Your task to perform on an android device: refresh tabs in the chrome app Image 0: 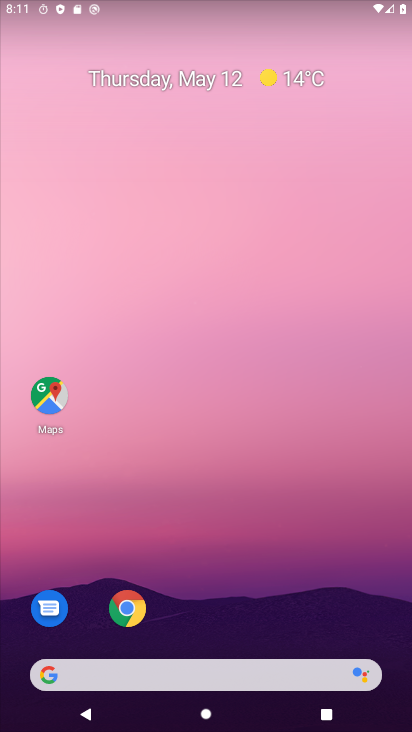
Step 0: click (137, 622)
Your task to perform on an android device: refresh tabs in the chrome app Image 1: 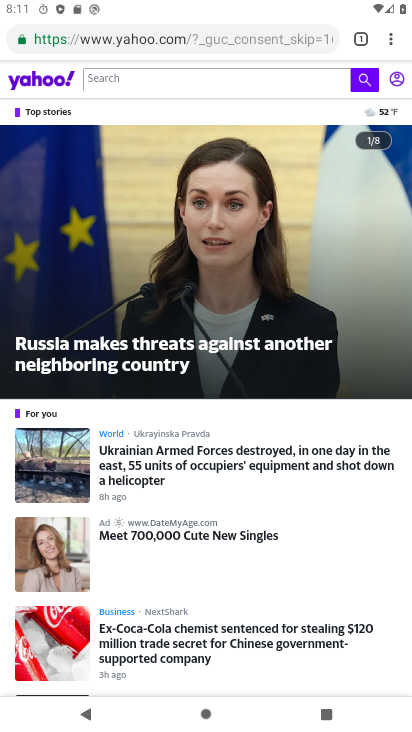
Step 1: click (365, 45)
Your task to perform on an android device: refresh tabs in the chrome app Image 2: 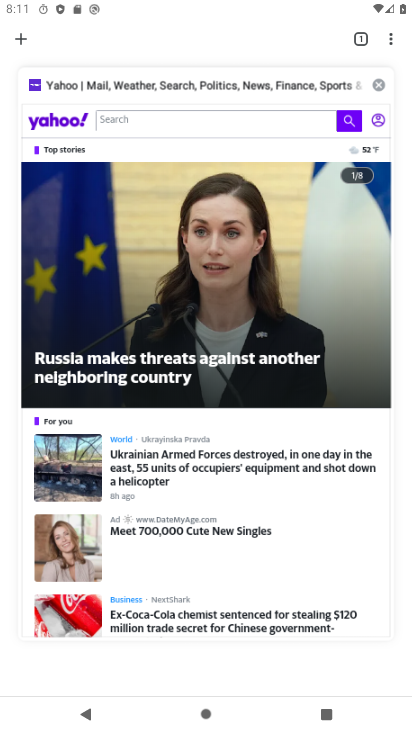
Step 2: click (351, 47)
Your task to perform on an android device: refresh tabs in the chrome app Image 3: 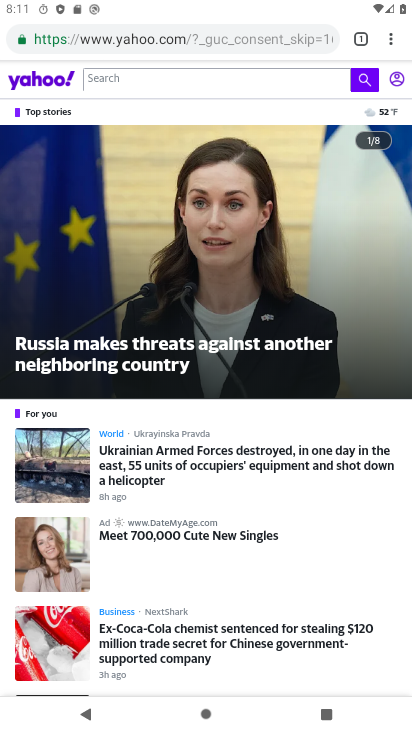
Step 3: click (394, 38)
Your task to perform on an android device: refresh tabs in the chrome app Image 4: 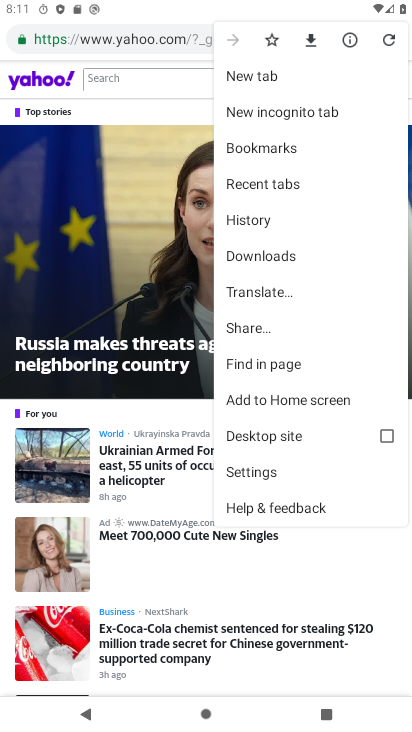
Step 4: click (391, 32)
Your task to perform on an android device: refresh tabs in the chrome app Image 5: 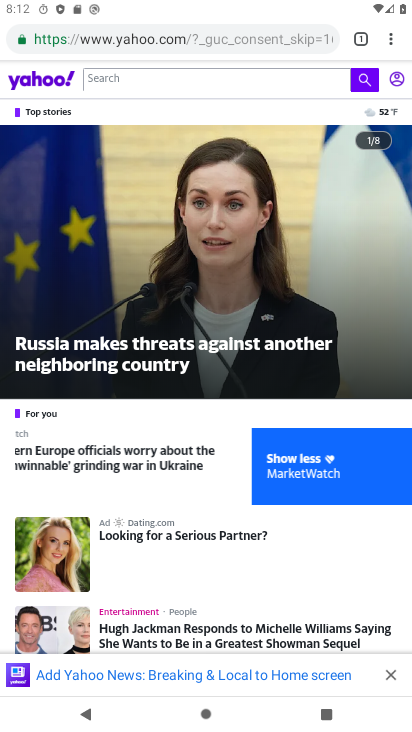
Step 5: task complete